Your task to perform on an android device: Set the phone to "Do not disturb". Image 0: 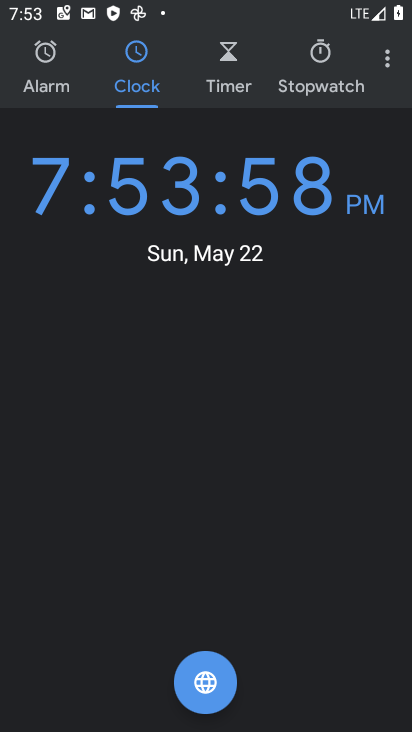
Step 0: press home button
Your task to perform on an android device: Set the phone to "Do not disturb". Image 1: 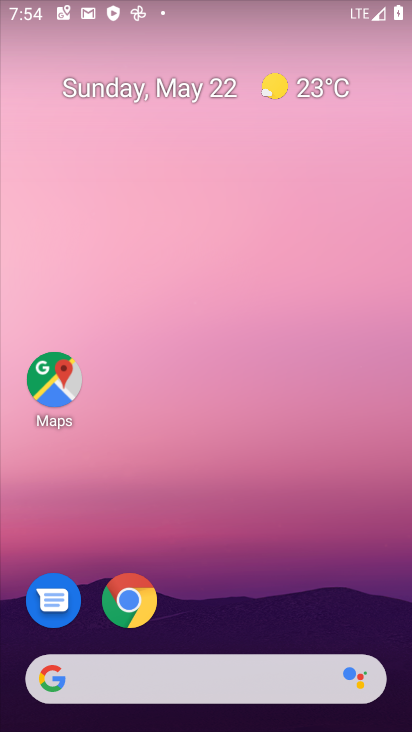
Step 1: drag from (168, 3) to (190, 394)
Your task to perform on an android device: Set the phone to "Do not disturb". Image 2: 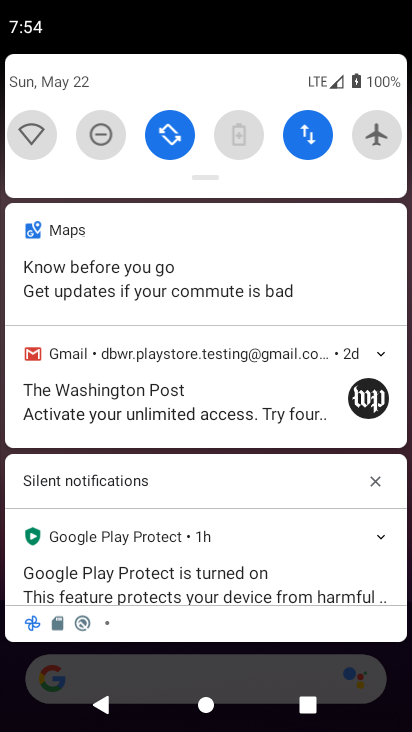
Step 2: click (100, 131)
Your task to perform on an android device: Set the phone to "Do not disturb". Image 3: 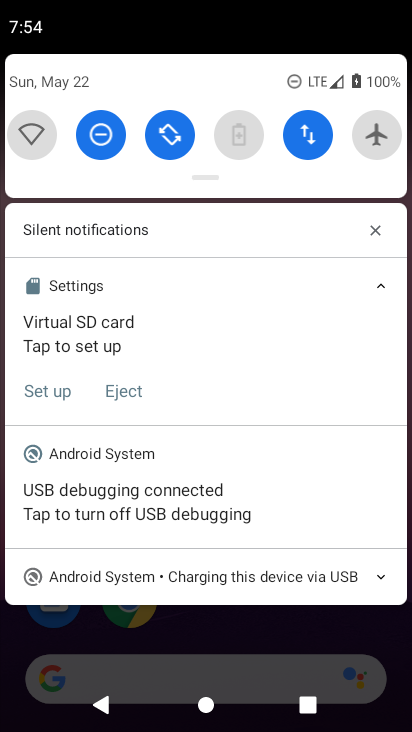
Step 3: task complete